Your task to perform on an android device: Set the phone to "Do not disturb". Image 0: 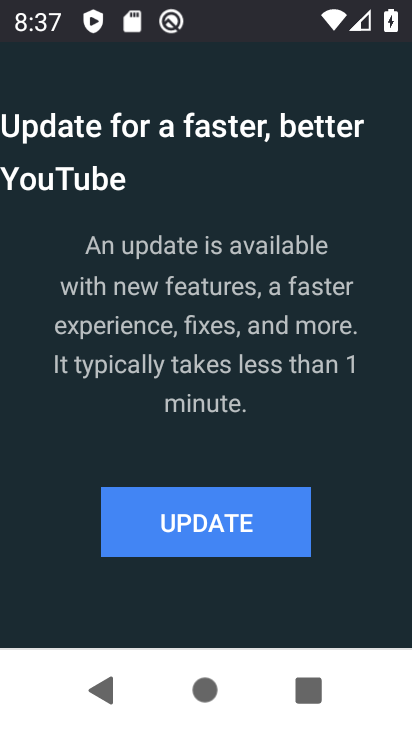
Step 0: press home button
Your task to perform on an android device: Set the phone to "Do not disturb". Image 1: 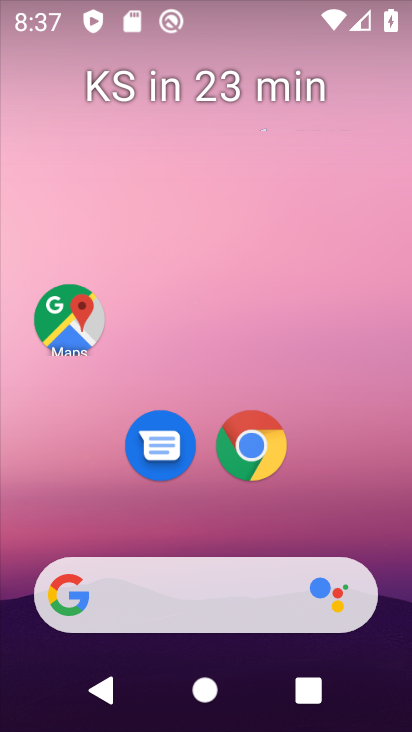
Step 1: drag from (301, 517) to (317, 113)
Your task to perform on an android device: Set the phone to "Do not disturb". Image 2: 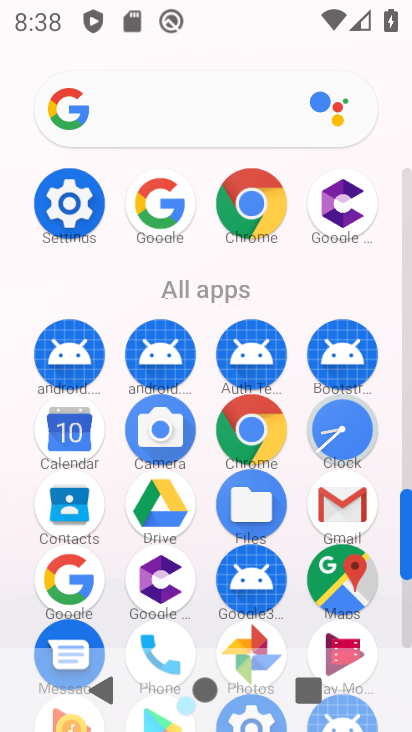
Step 2: drag from (296, 619) to (297, 350)
Your task to perform on an android device: Set the phone to "Do not disturb". Image 3: 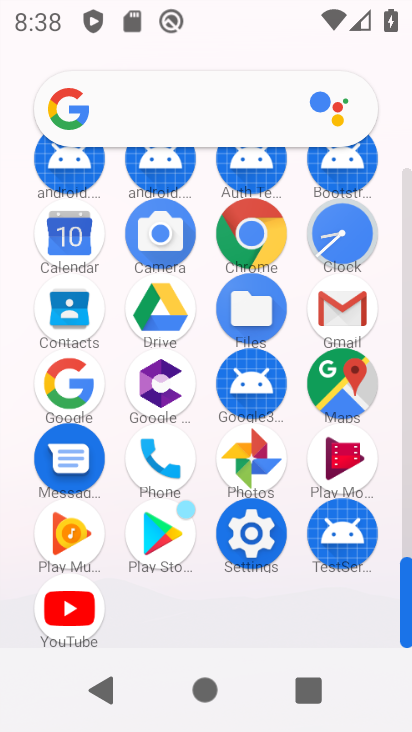
Step 3: click (263, 535)
Your task to perform on an android device: Set the phone to "Do not disturb". Image 4: 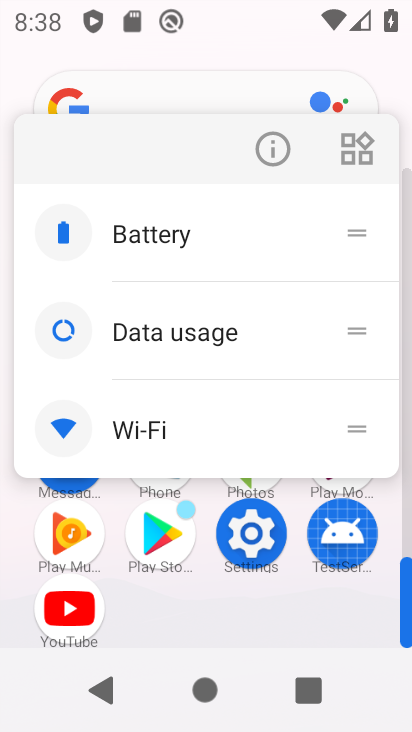
Step 4: click (262, 531)
Your task to perform on an android device: Set the phone to "Do not disturb". Image 5: 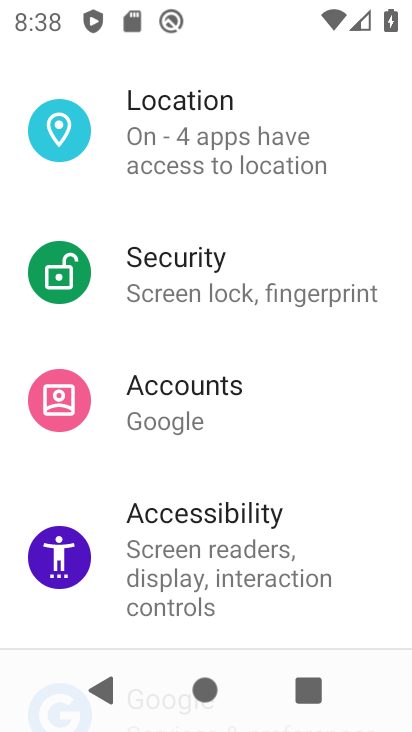
Step 5: drag from (275, 575) to (340, 340)
Your task to perform on an android device: Set the phone to "Do not disturb". Image 6: 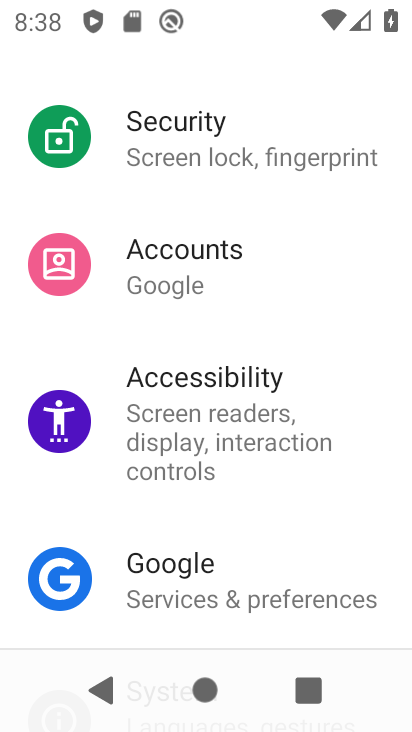
Step 6: drag from (189, 541) to (188, 277)
Your task to perform on an android device: Set the phone to "Do not disturb". Image 7: 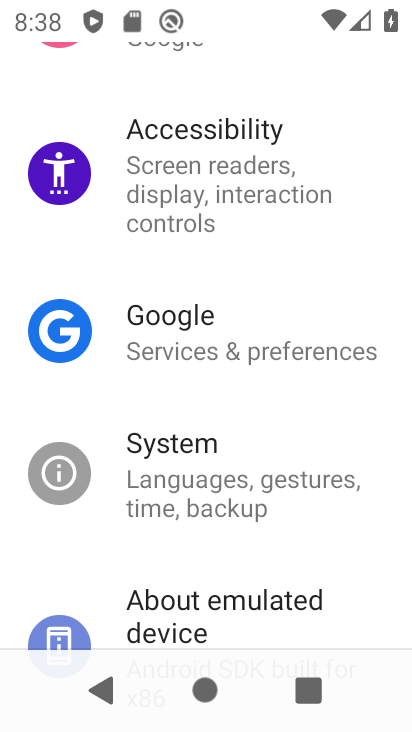
Step 7: drag from (256, 222) to (185, 548)
Your task to perform on an android device: Set the phone to "Do not disturb". Image 8: 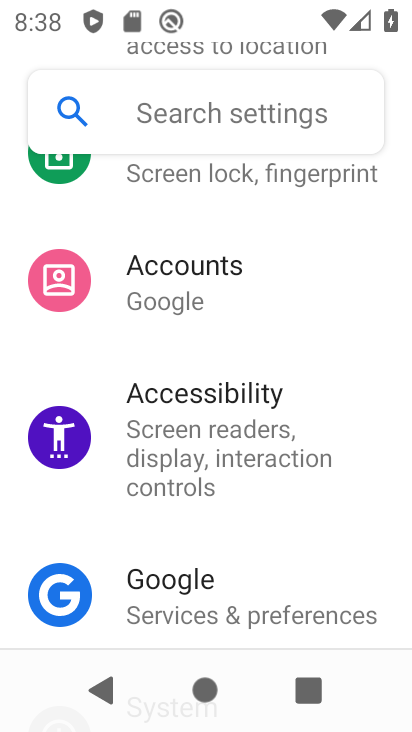
Step 8: drag from (248, 268) to (180, 554)
Your task to perform on an android device: Set the phone to "Do not disturb". Image 9: 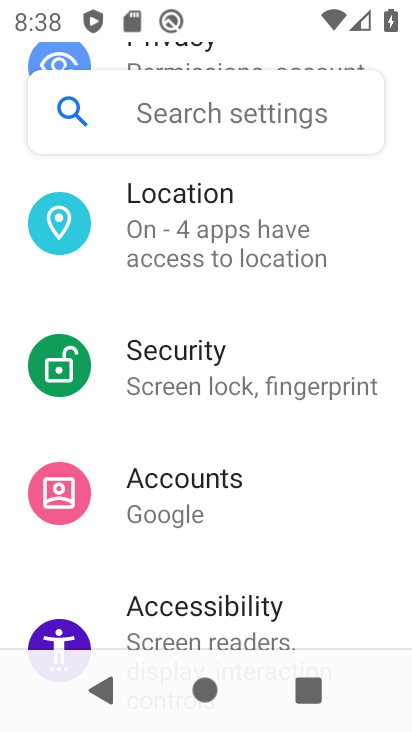
Step 9: drag from (213, 301) to (165, 504)
Your task to perform on an android device: Set the phone to "Do not disturb". Image 10: 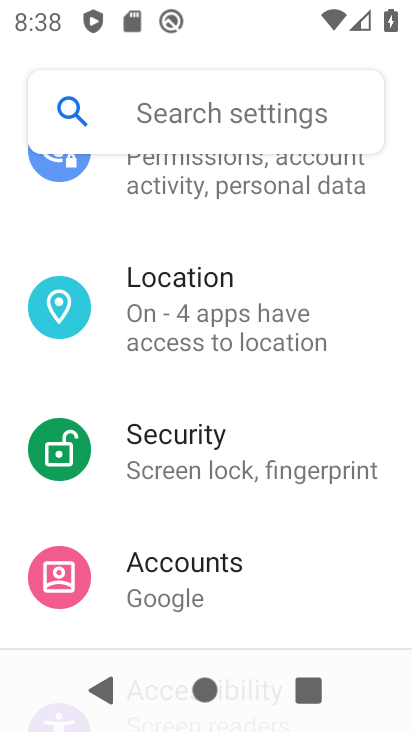
Step 10: drag from (251, 287) to (175, 506)
Your task to perform on an android device: Set the phone to "Do not disturb". Image 11: 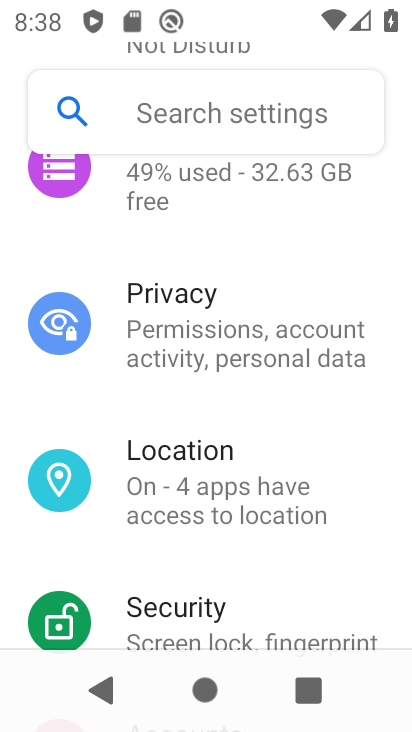
Step 11: drag from (249, 284) to (169, 564)
Your task to perform on an android device: Set the phone to "Do not disturb". Image 12: 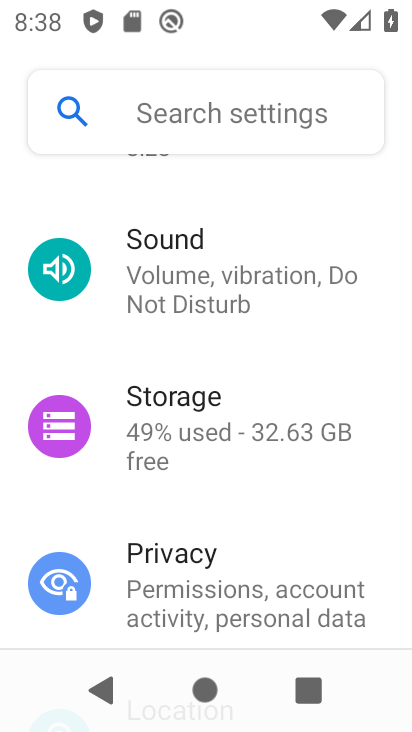
Step 12: drag from (238, 323) to (167, 594)
Your task to perform on an android device: Set the phone to "Do not disturb". Image 13: 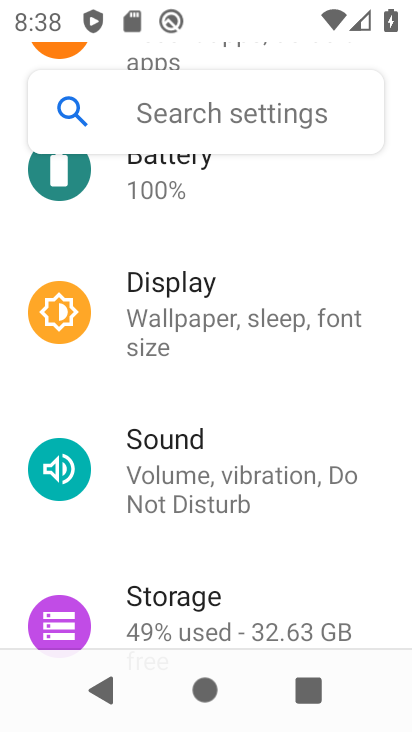
Step 13: drag from (235, 307) to (189, 514)
Your task to perform on an android device: Set the phone to "Do not disturb". Image 14: 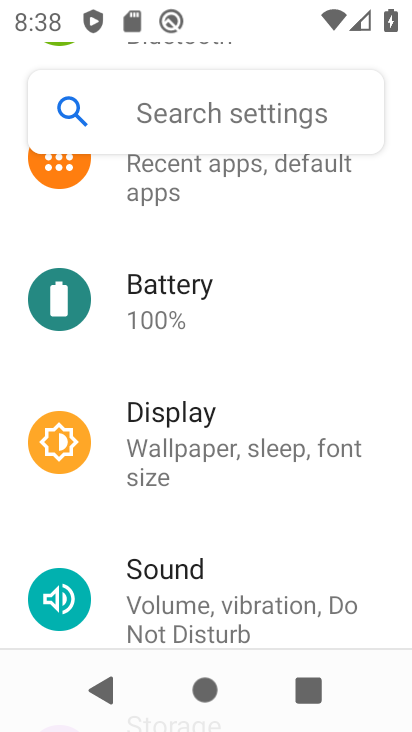
Step 14: drag from (246, 292) to (212, 512)
Your task to perform on an android device: Set the phone to "Do not disturb". Image 15: 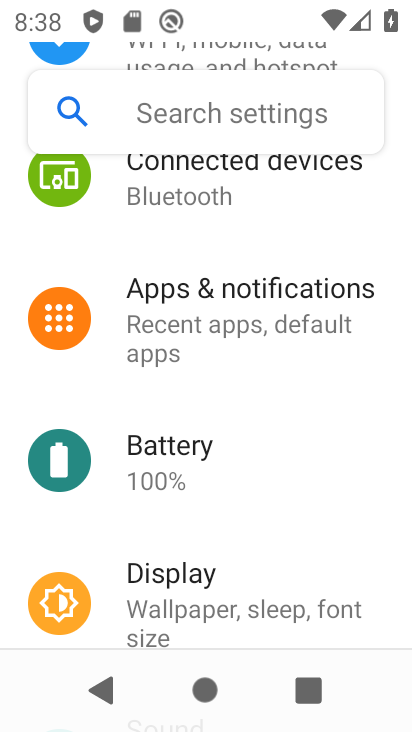
Step 15: drag from (228, 265) to (174, 484)
Your task to perform on an android device: Set the phone to "Do not disturb". Image 16: 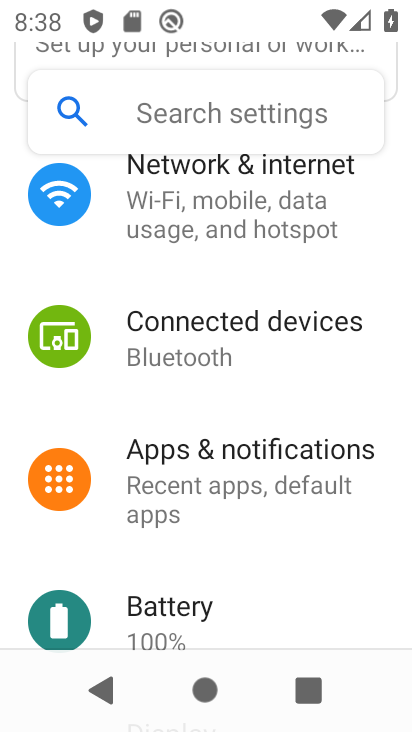
Step 16: drag from (186, 568) to (258, 336)
Your task to perform on an android device: Set the phone to "Do not disturb". Image 17: 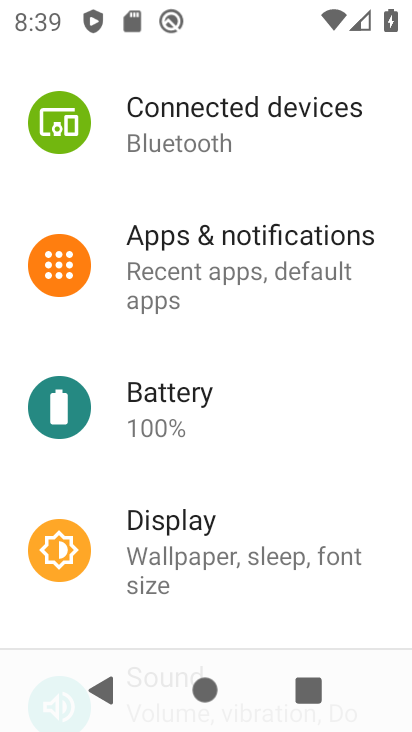
Step 17: drag from (229, 546) to (263, 238)
Your task to perform on an android device: Set the phone to "Do not disturb". Image 18: 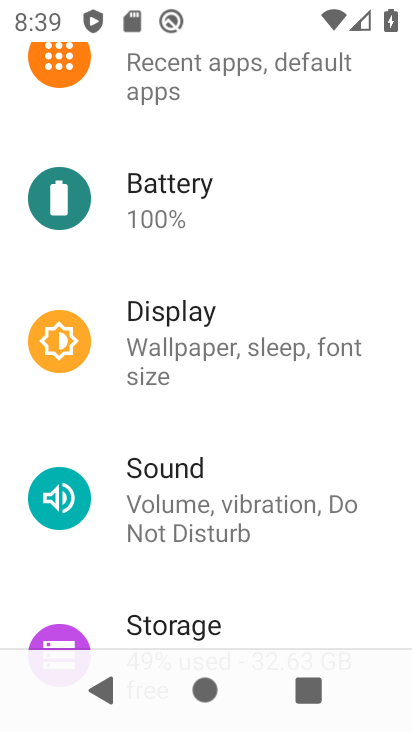
Step 18: click (212, 471)
Your task to perform on an android device: Set the phone to "Do not disturb". Image 19: 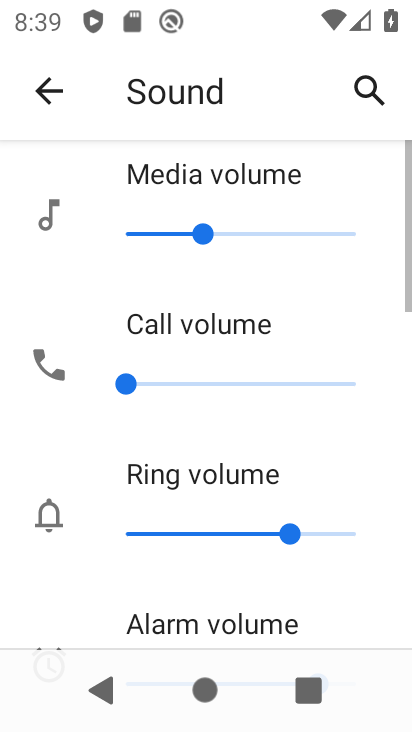
Step 19: drag from (210, 537) to (258, 304)
Your task to perform on an android device: Set the phone to "Do not disturb". Image 20: 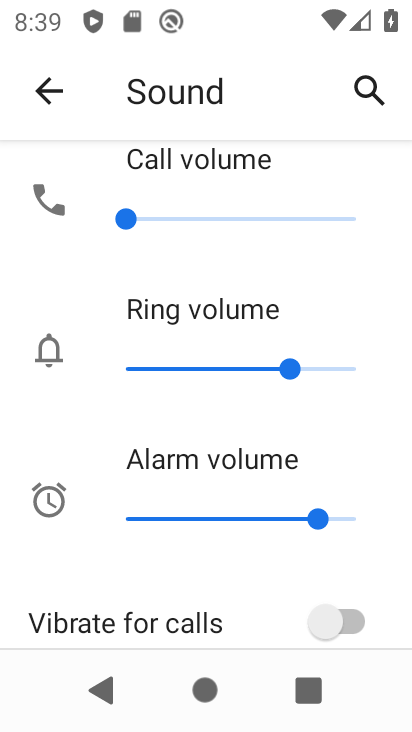
Step 20: drag from (198, 606) to (243, 281)
Your task to perform on an android device: Set the phone to "Do not disturb". Image 21: 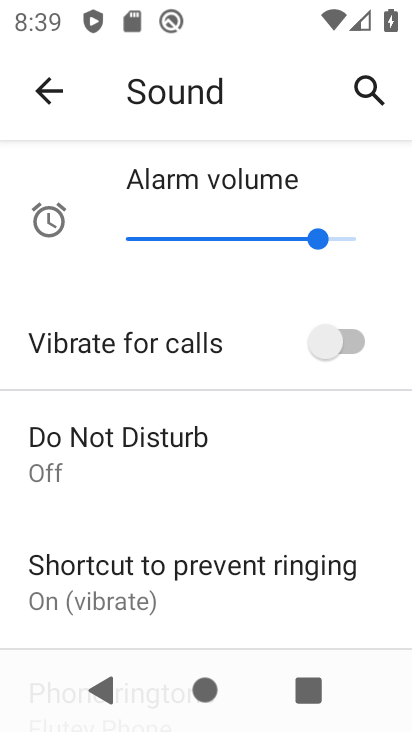
Step 21: click (135, 459)
Your task to perform on an android device: Set the phone to "Do not disturb". Image 22: 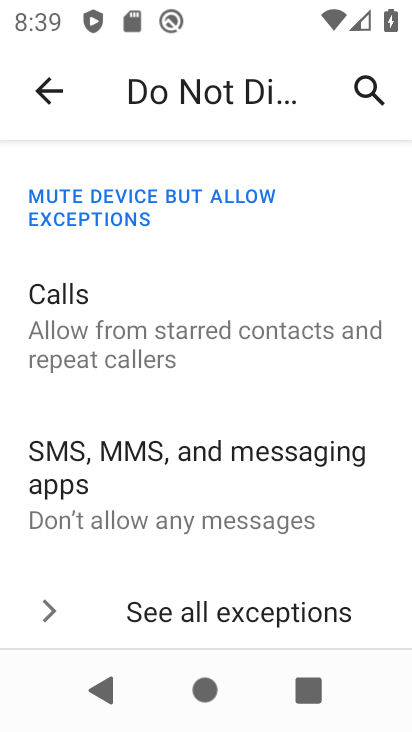
Step 22: drag from (216, 601) to (270, 416)
Your task to perform on an android device: Set the phone to "Do not disturb". Image 23: 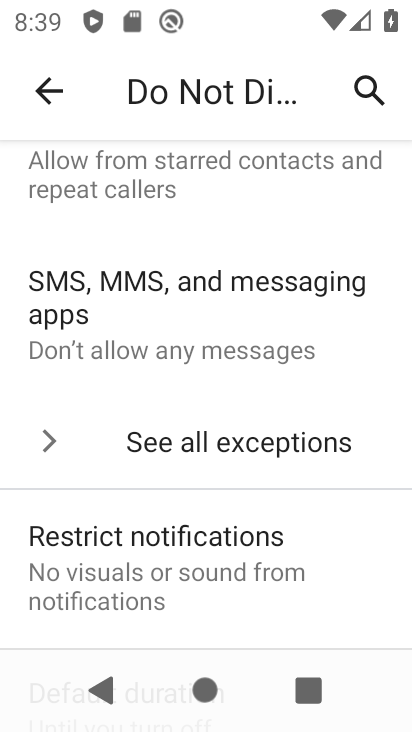
Step 23: drag from (202, 586) to (222, 409)
Your task to perform on an android device: Set the phone to "Do not disturb". Image 24: 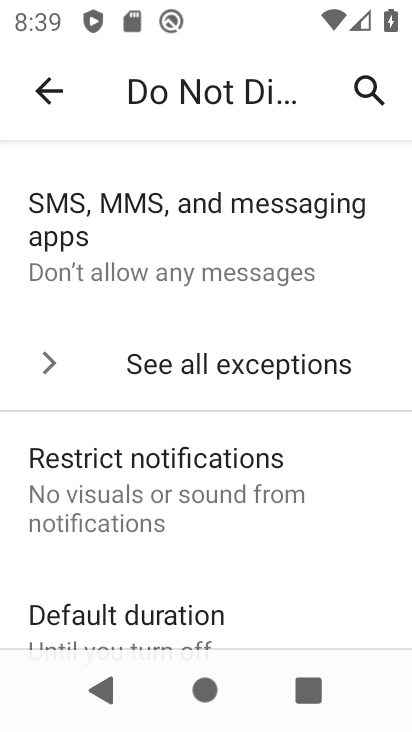
Step 24: drag from (227, 582) to (269, 258)
Your task to perform on an android device: Set the phone to "Do not disturb". Image 25: 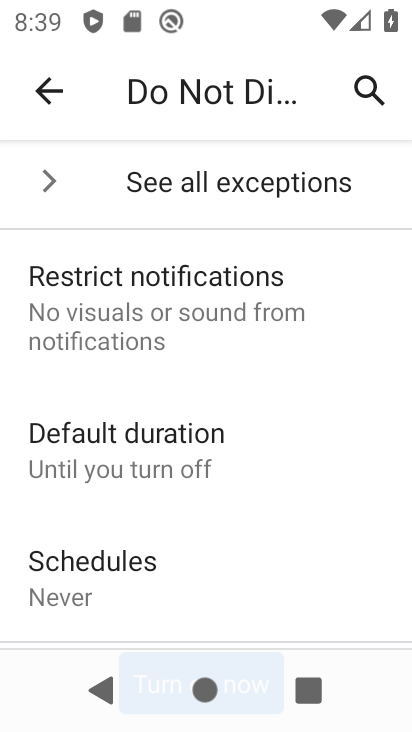
Step 25: drag from (246, 518) to (262, 212)
Your task to perform on an android device: Set the phone to "Do not disturb". Image 26: 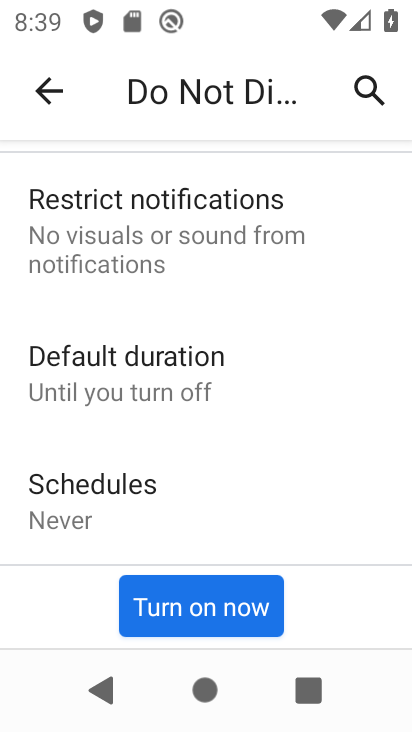
Step 26: click (177, 595)
Your task to perform on an android device: Set the phone to "Do not disturb". Image 27: 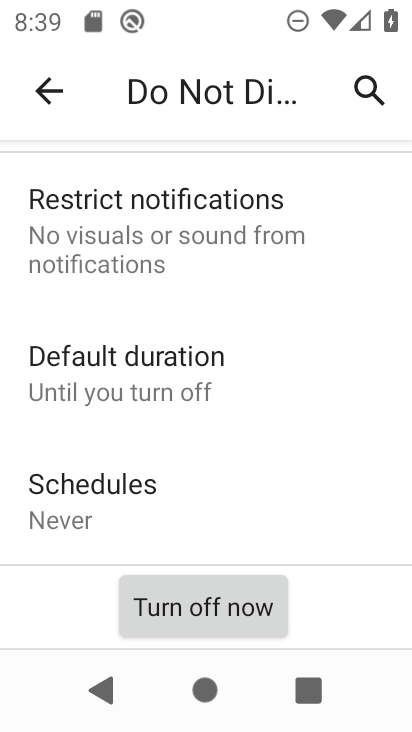
Step 27: task complete